Your task to perform on an android device: check android version Image 0: 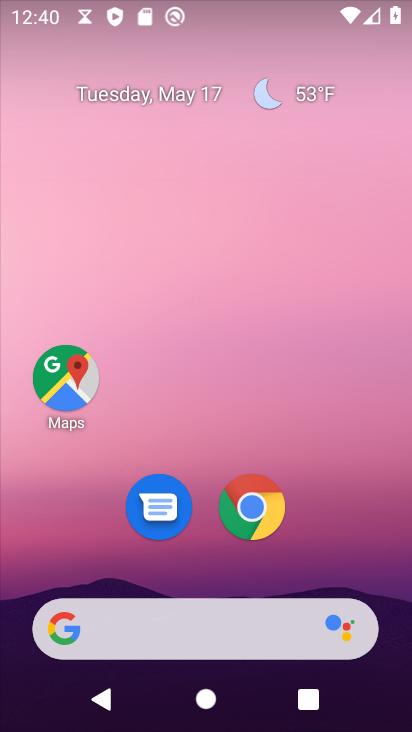
Step 0: drag from (322, 571) to (258, 56)
Your task to perform on an android device: check android version Image 1: 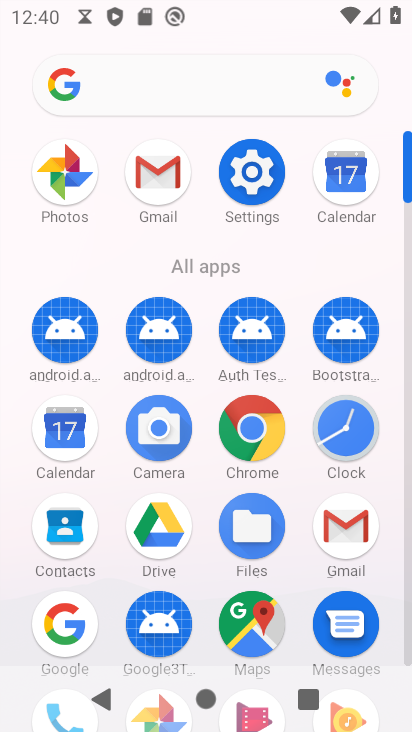
Step 1: click (246, 172)
Your task to perform on an android device: check android version Image 2: 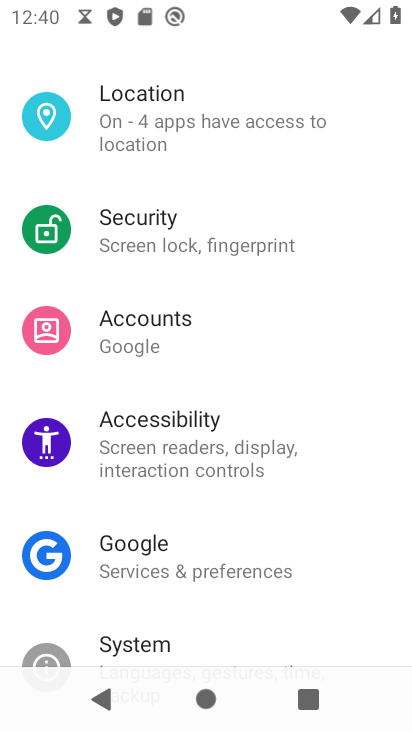
Step 2: drag from (229, 616) to (240, 359)
Your task to perform on an android device: check android version Image 3: 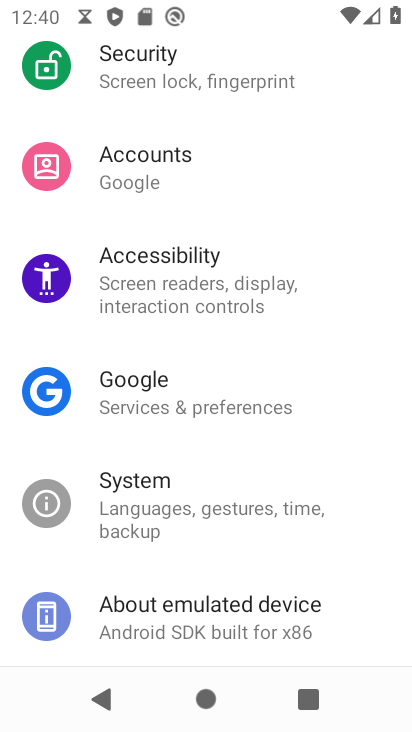
Step 3: click (194, 627)
Your task to perform on an android device: check android version Image 4: 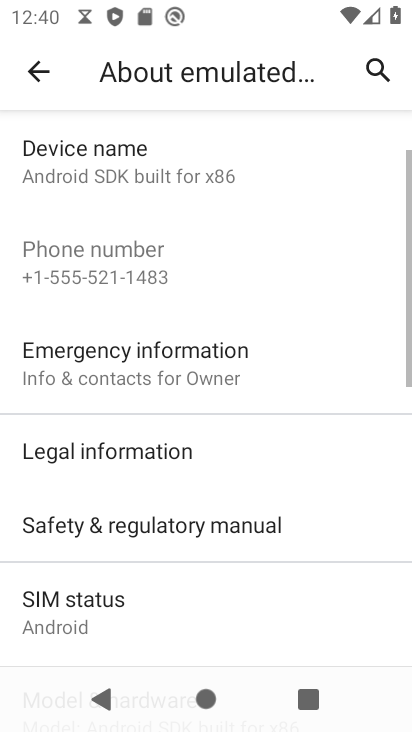
Step 4: drag from (174, 615) to (131, 424)
Your task to perform on an android device: check android version Image 5: 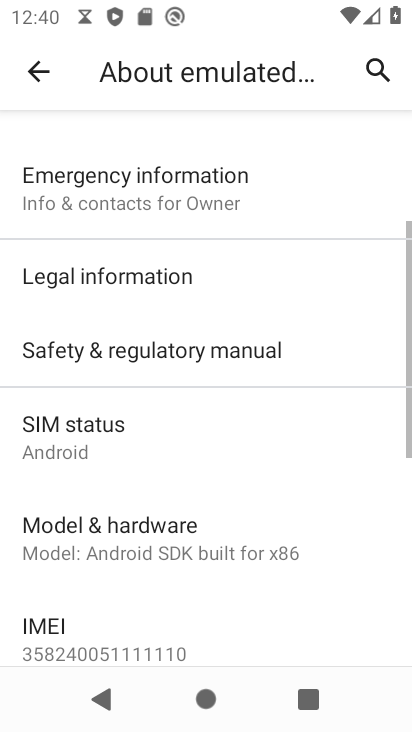
Step 5: drag from (186, 619) to (156, 453)
Your task to perform on an android device: check android version Image 6: 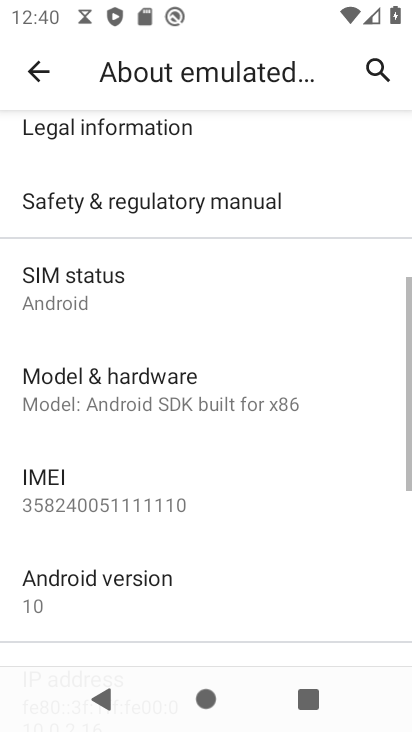
Step 6: click (158, 591)
Your task to perform on an android device: check android version Image 7: 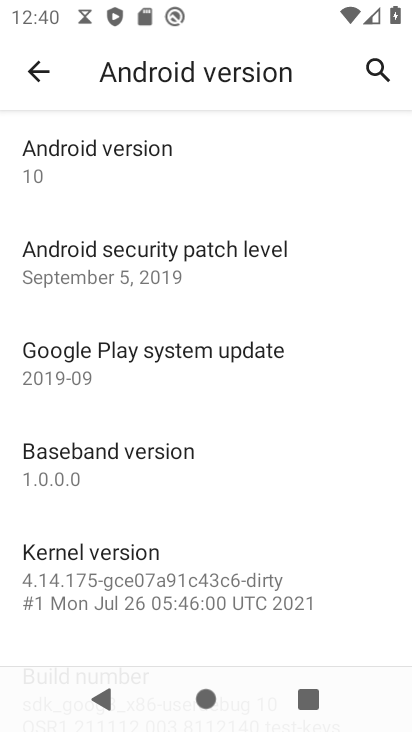
Step 7: click (108, 181)
Your task to perform on an android device: check android version Image 8: 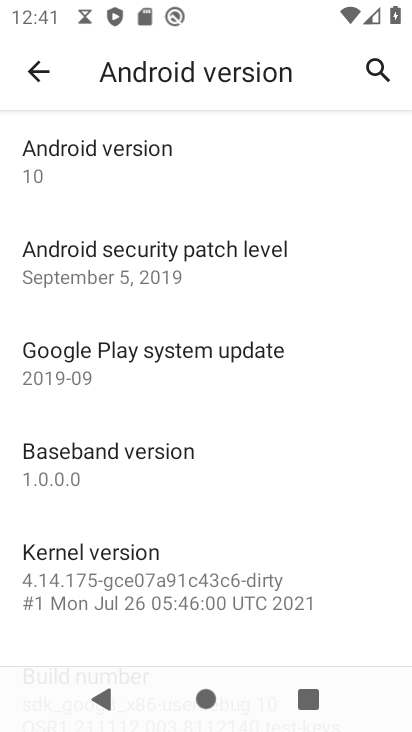
Step 8: task complete